Your task to perform on an android device: turn on javascript in the chrome app Image 0: 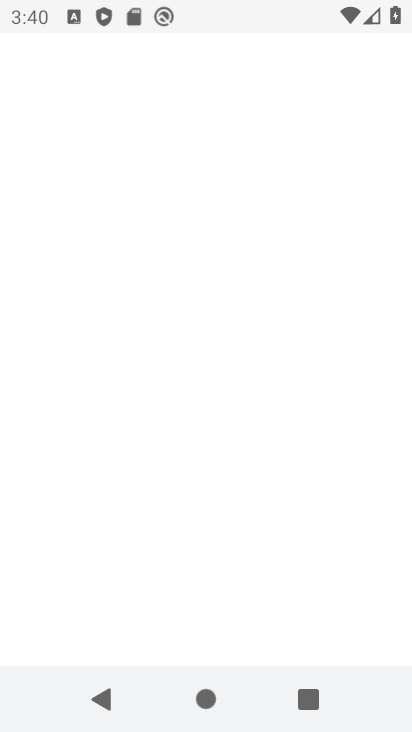
Step 0: drag from (307, 503) to (324, 19)
Your task to perform on an android device: turn on javascript in the chrome app Image 1: 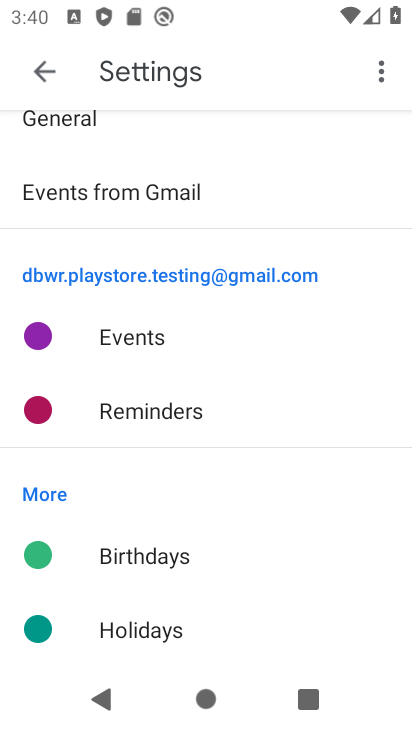
Step 1: press home button
Your task to perform on an android device: turn on javascript in the chrome app Image 2: 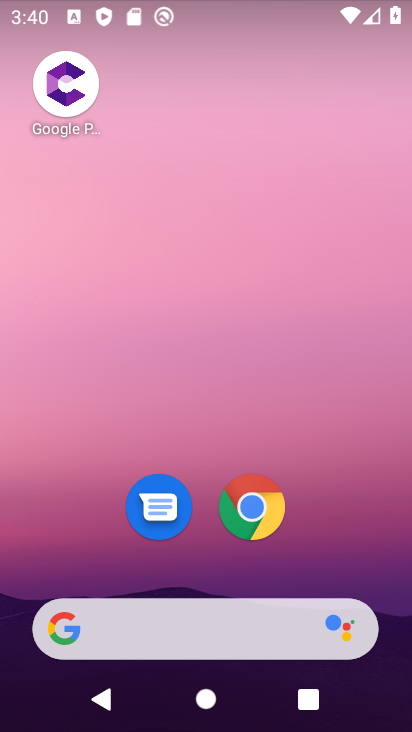
Step 2: drag from (345, 487) to (313, 54)
Your task to perform on an android device: turn on javascript in the chrome app Image 3: 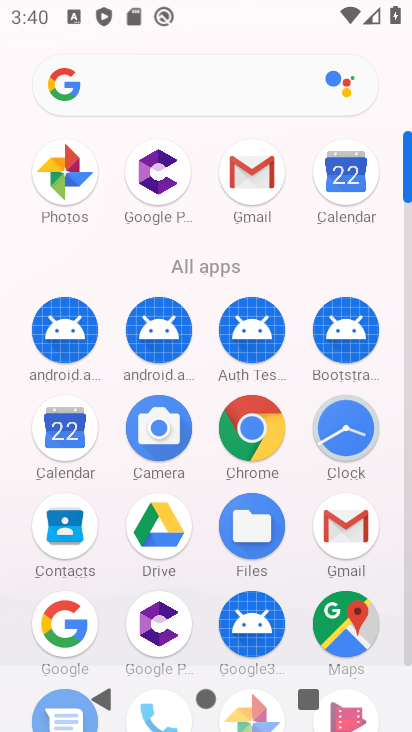
Step 3: click (254, 443)
Your task to perform on an android device: turn on javascript in the chrome app Image 4: 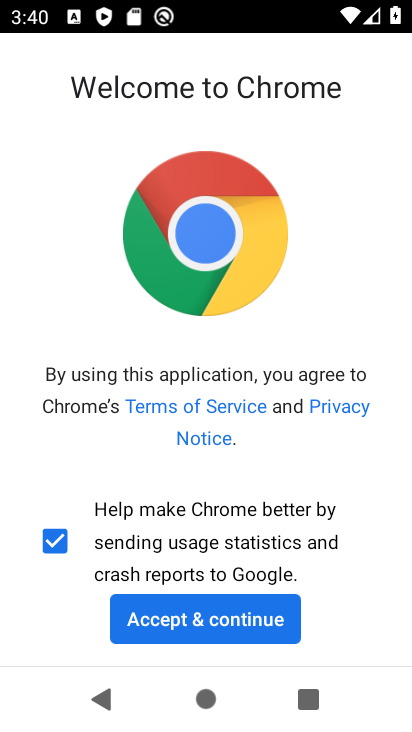
Step 4: click (160, 618)
Your task to perform on an android device: turn on javascript in the chrome app Image 5: 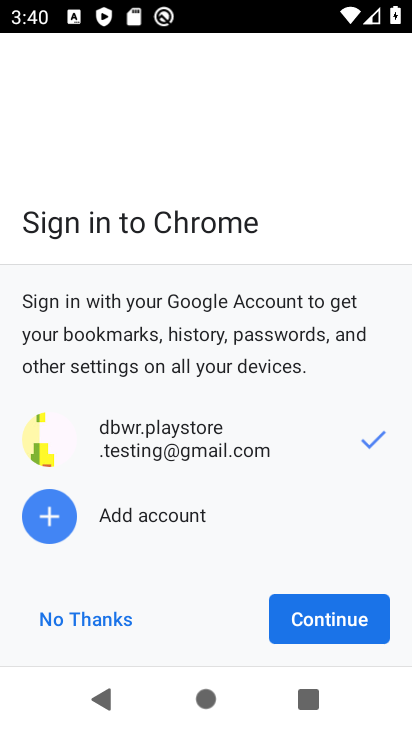
Step 5: click (73, 610)
Your task to perform on an android device: turn on javascript in the chrome app Image 6: 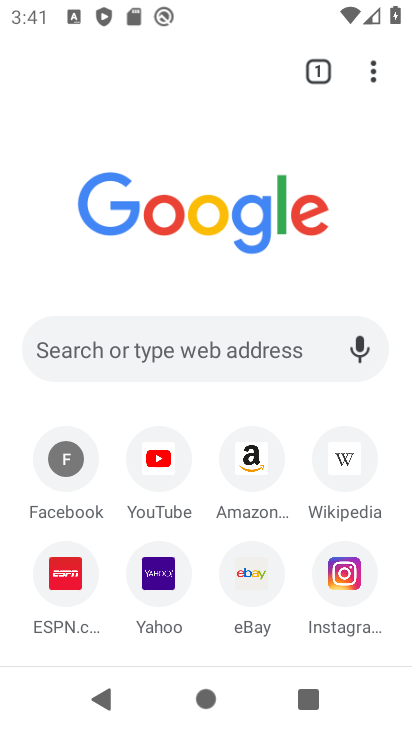
Step 6: drag from (371, 73) to (155, 488)
Your task to perform on an android device: turn on javascript in the chrome app Image 7: 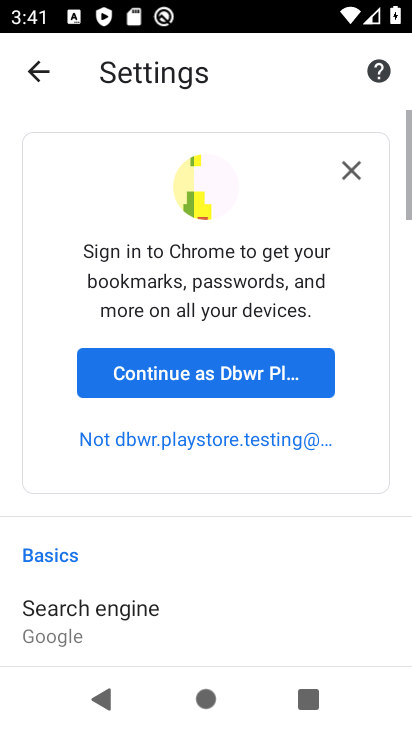
Step 7: click (161, 388)
Your task to perform on an android device: turn on javascript in the chrome app Image 8: 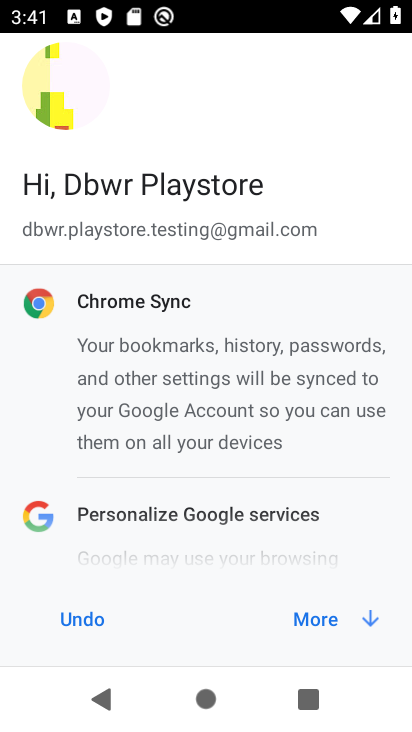
Step 8: click (321, 619)
Your task to perform on an android device: turn on javascript in the chrome app Image 9: 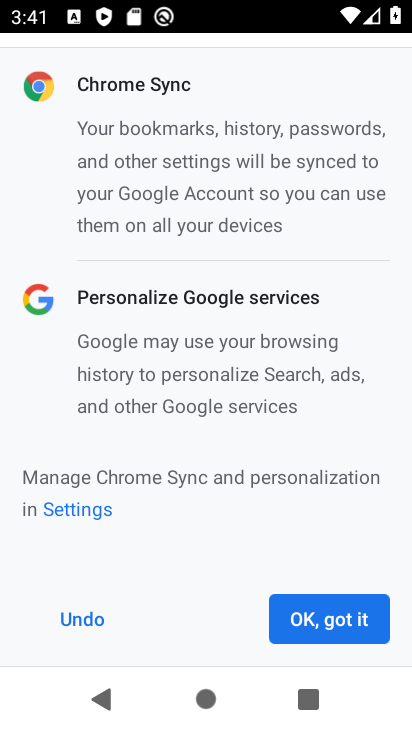
Step 9: click (321, 634)
Your task to perform on an android device: turn on javascript in the chrome app Image 10: 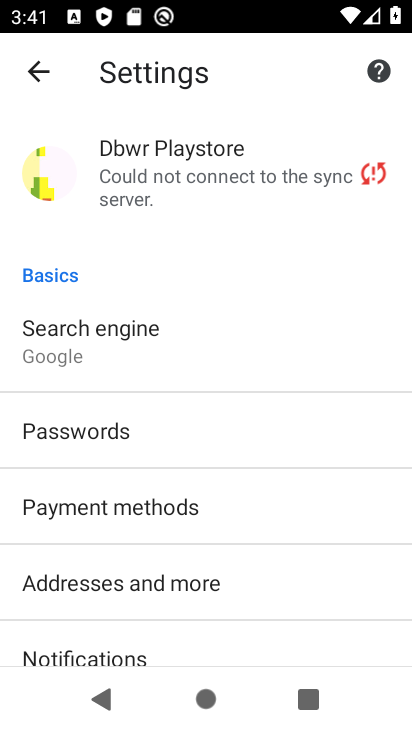
Step 10: drag from (243, 580) to (281, 285)
Your task to perform on an android device: turn on javascript in the chrome app Image 11: 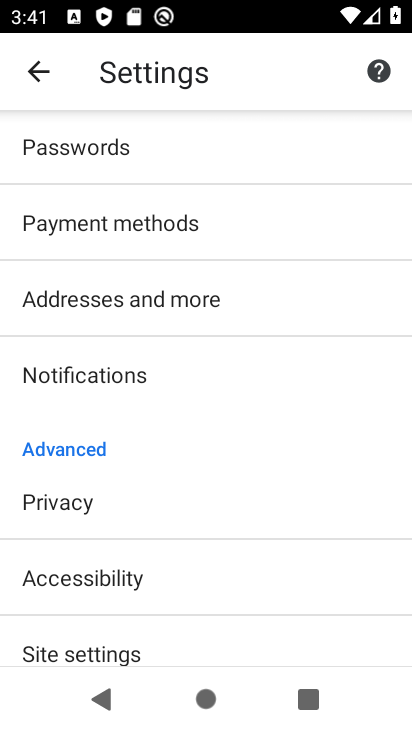
Step 11: drag from (200, 535) to (179, 185)
Your task to perform on an android device: turn on javascript in the chrome app Image 12: 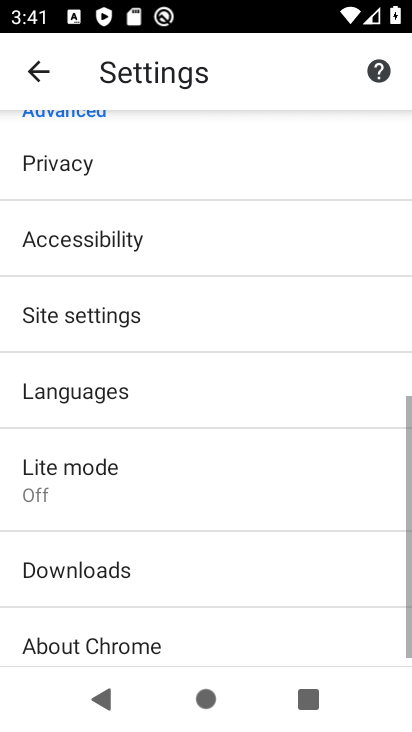
Step 12: click (87, 326)
Your task to perform on an android device: turn on javascript in the chrome app Image 13: 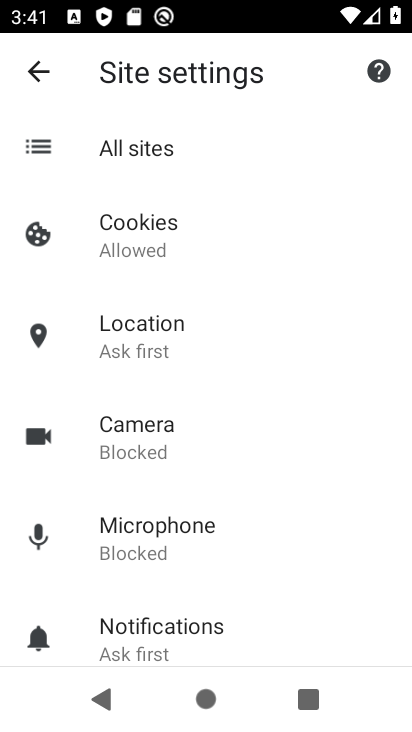
Step 13: drag from (160, 633) to (161, 199)
Your task to perform on an android device: turn on javascript in the chrome app Image 14: 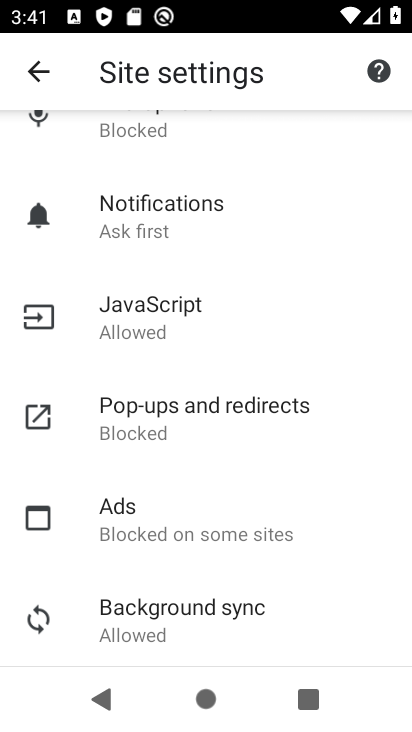
Step 14: click (141, 325)
Your task to perform on an android device: turn on javascript in the chrome app Image 15: 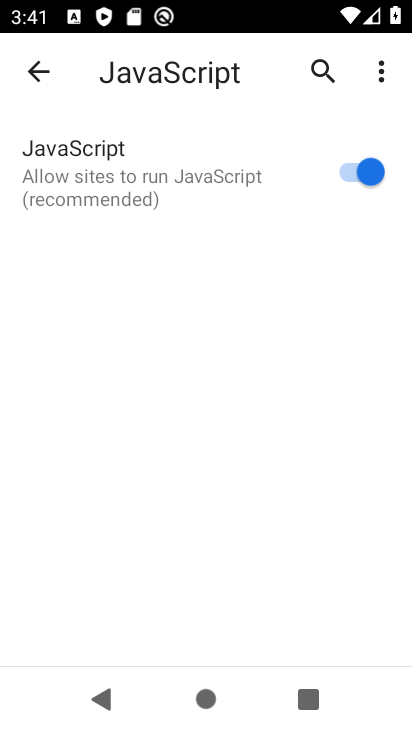
Step 15: task complete